Your task to perform on an android device: Open calendar and show me the fourth week of next month Image 0: 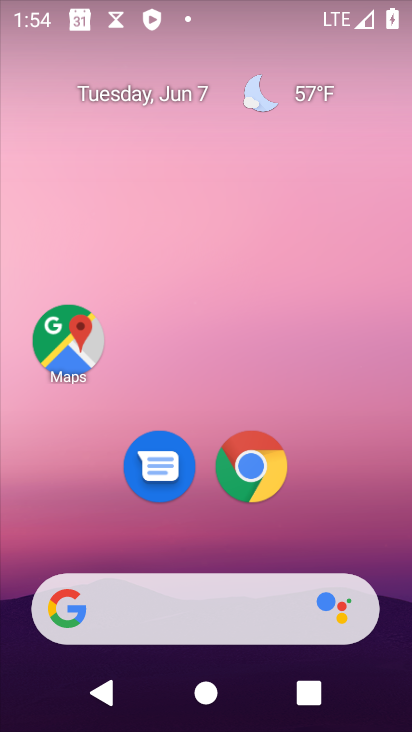
Step 0: drag from (164, 509) to (224, 45)
Your task to perform on an android device: Open calendar and show me the fourth week of next month Image 1: 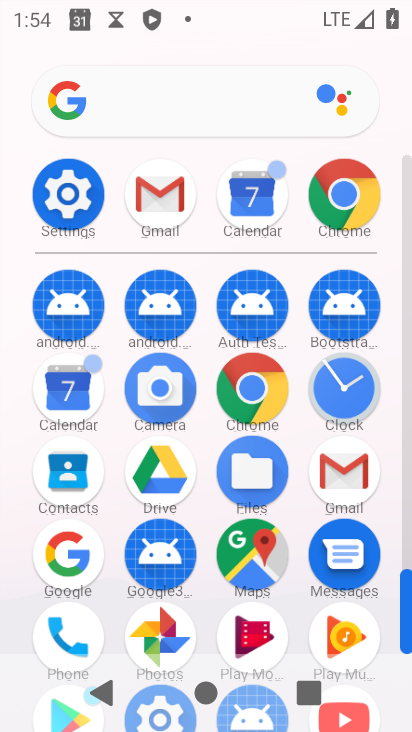
Step 1: click (67, 403)
Your task to perform on an android device: Open calendar and show me the fourth week of next month Image 2: 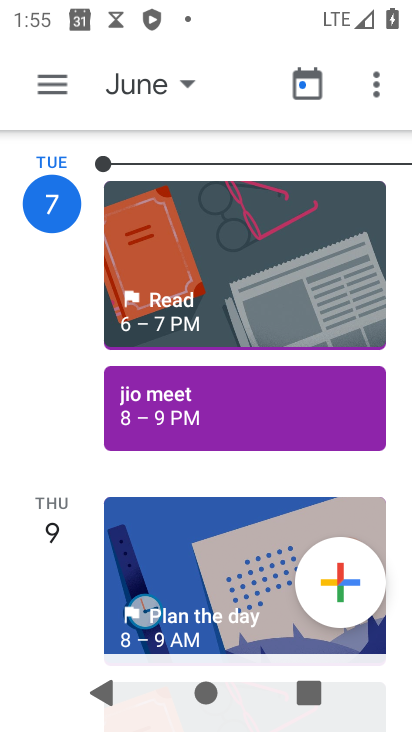
Step 2: click (153, 81)
Your task to perform on an android device: Open calendar and show me the fourth week of next month Image 3: 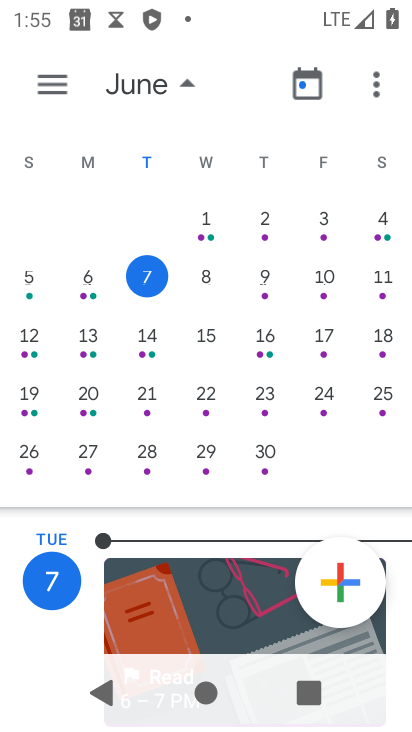
Step 3: drag from (374, 325) to (72, 292)
Your task to perform on an android device: Open calendar and show me the fourth week of next month Image 4: 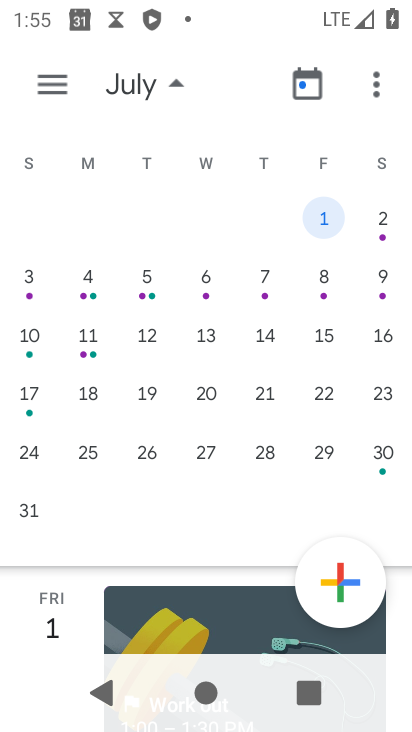
Step 4: click (79, 456)
Your task to perform on an android device: Open calendar and show me the fourth week of next month Image 5: 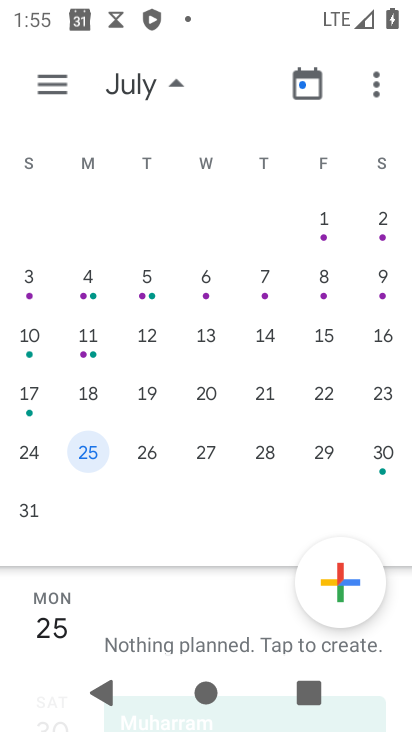
Step 5: task complete